Your task to perform on an android device: Go to settings Image 0: 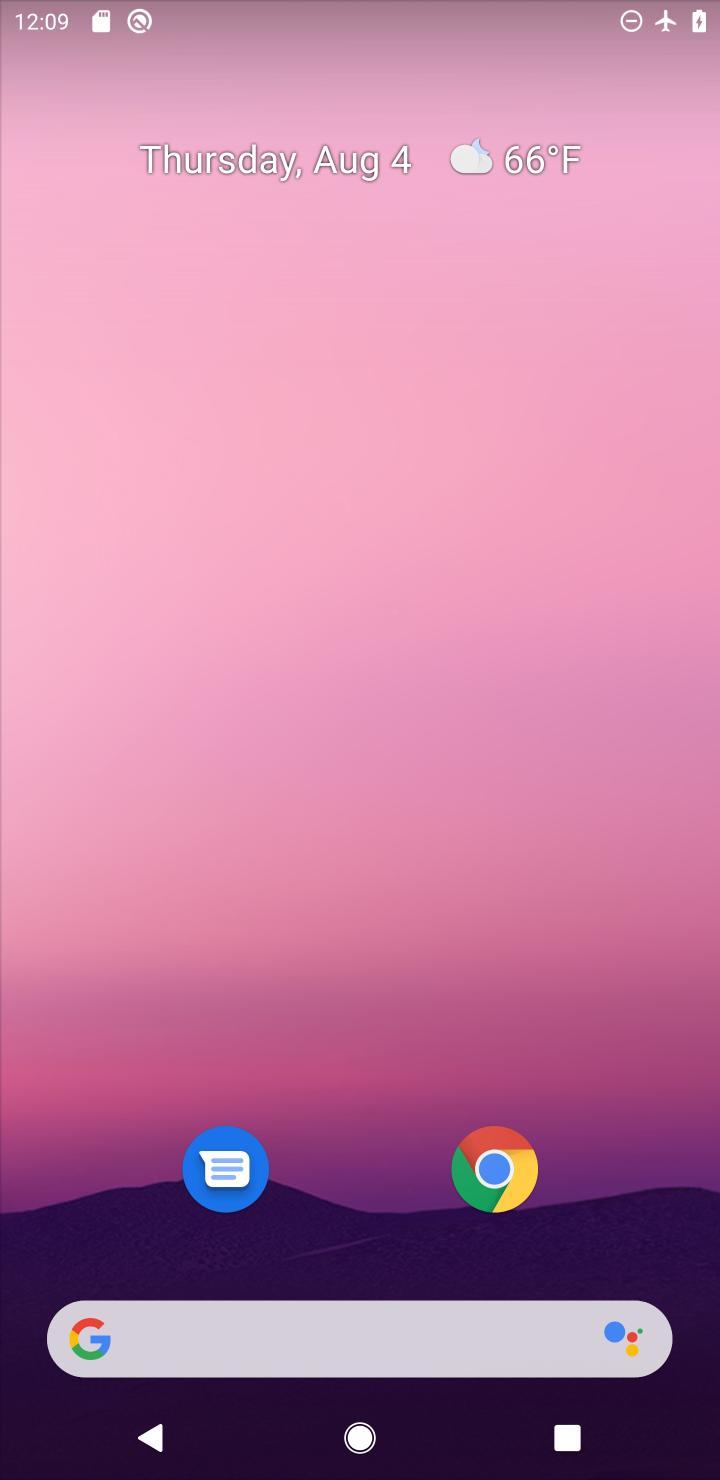
Step 0: drag from (372, 1193) to (430, 24)
Your task to perform on an android device: Go to settings Image 1: 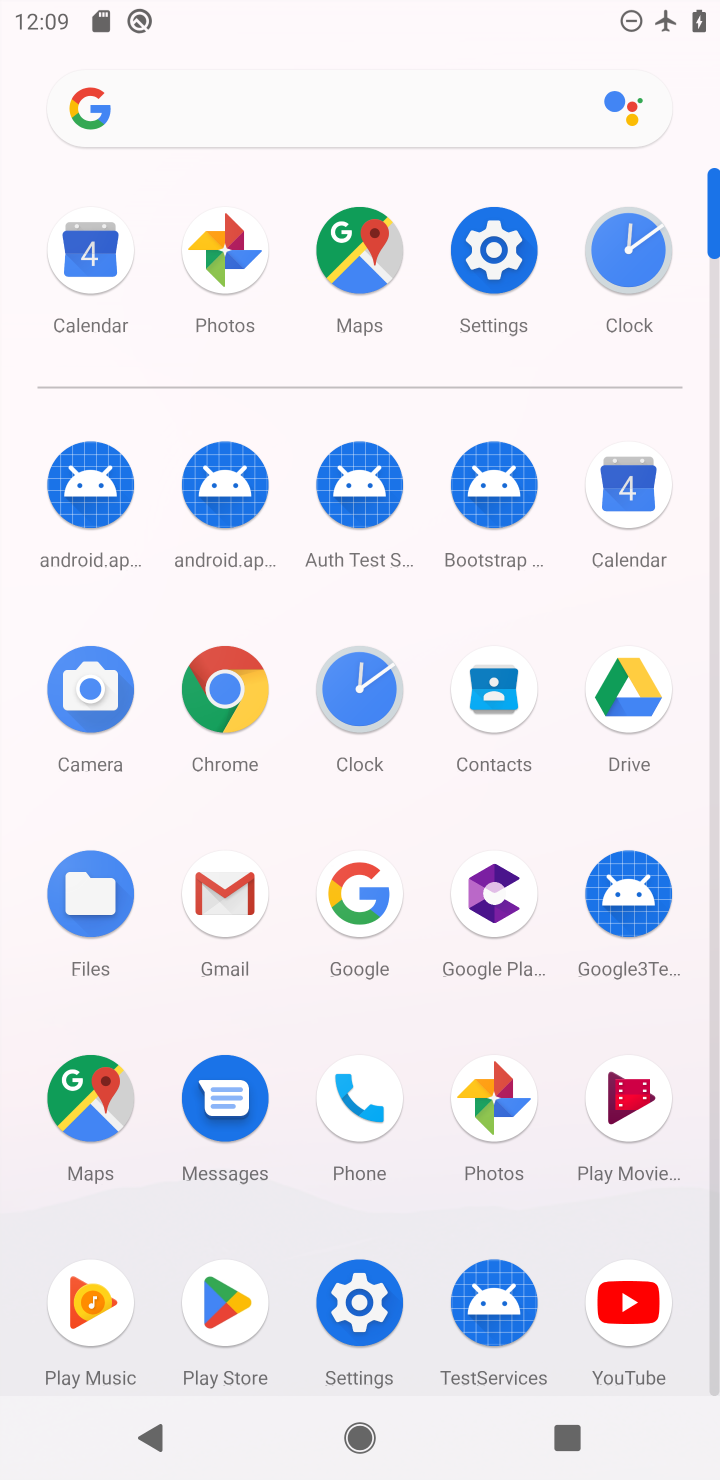
Step 1: click (496, 249)
Your task to perform on an android device: Go to settings Image 2: 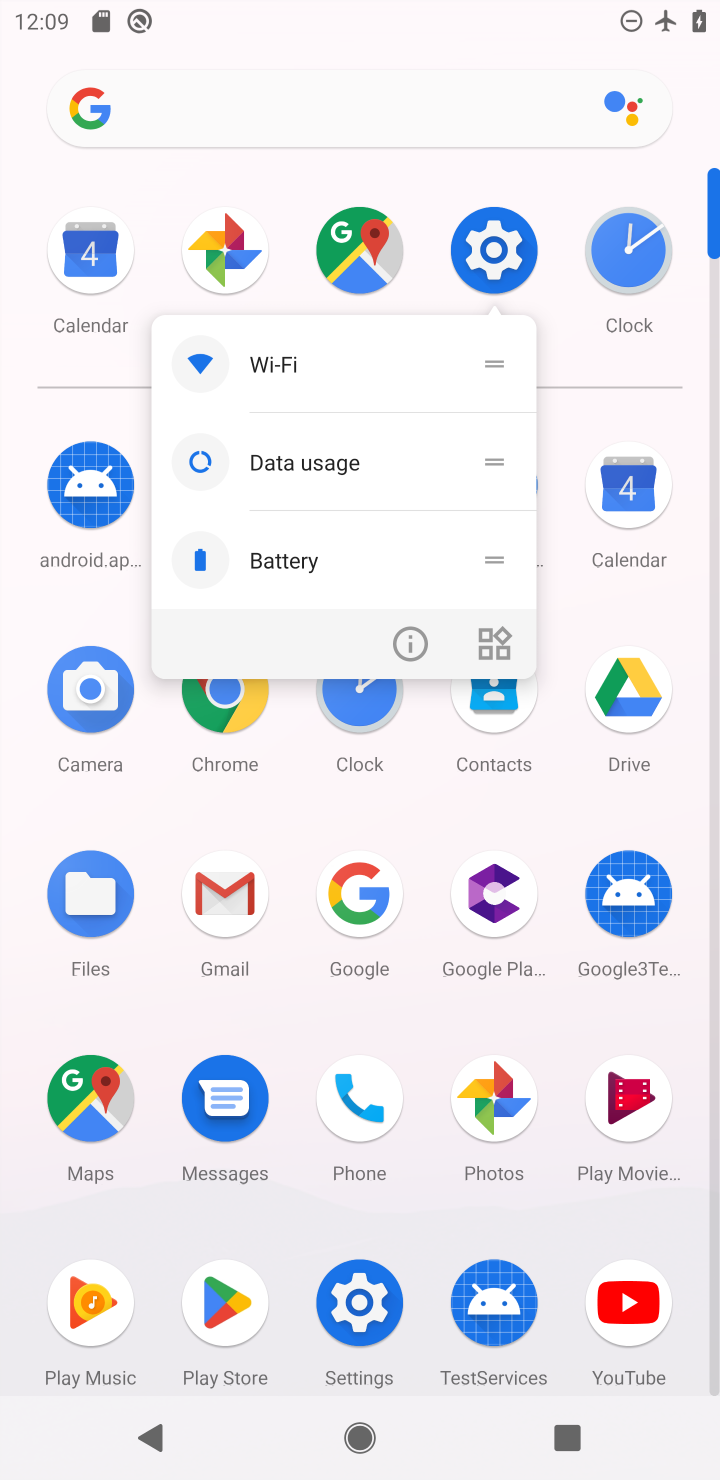
Step 2: click (496, 249)
Your task to perform on an android device: Go to settings Image 3: 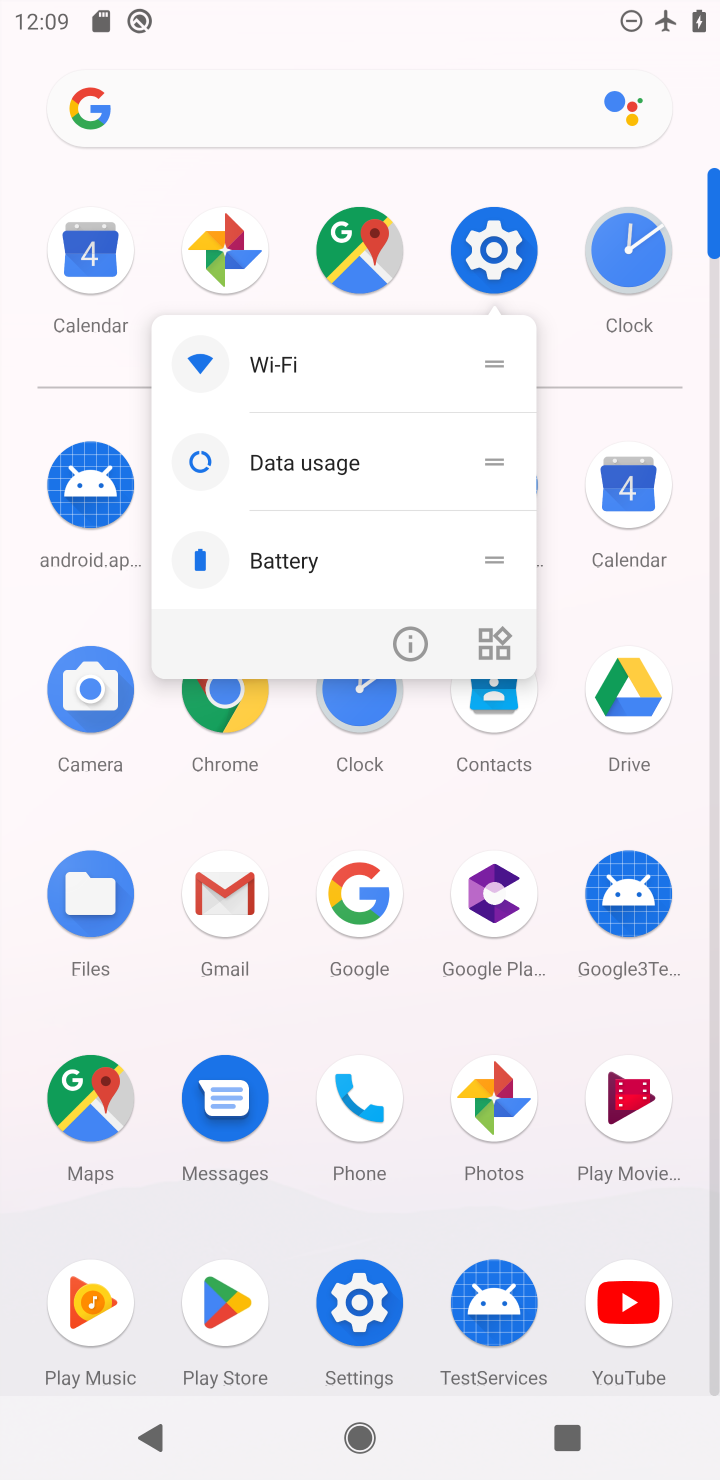
Step 3: click (496, 249)
Your task to perform on an android device: Go to settings Image 4: 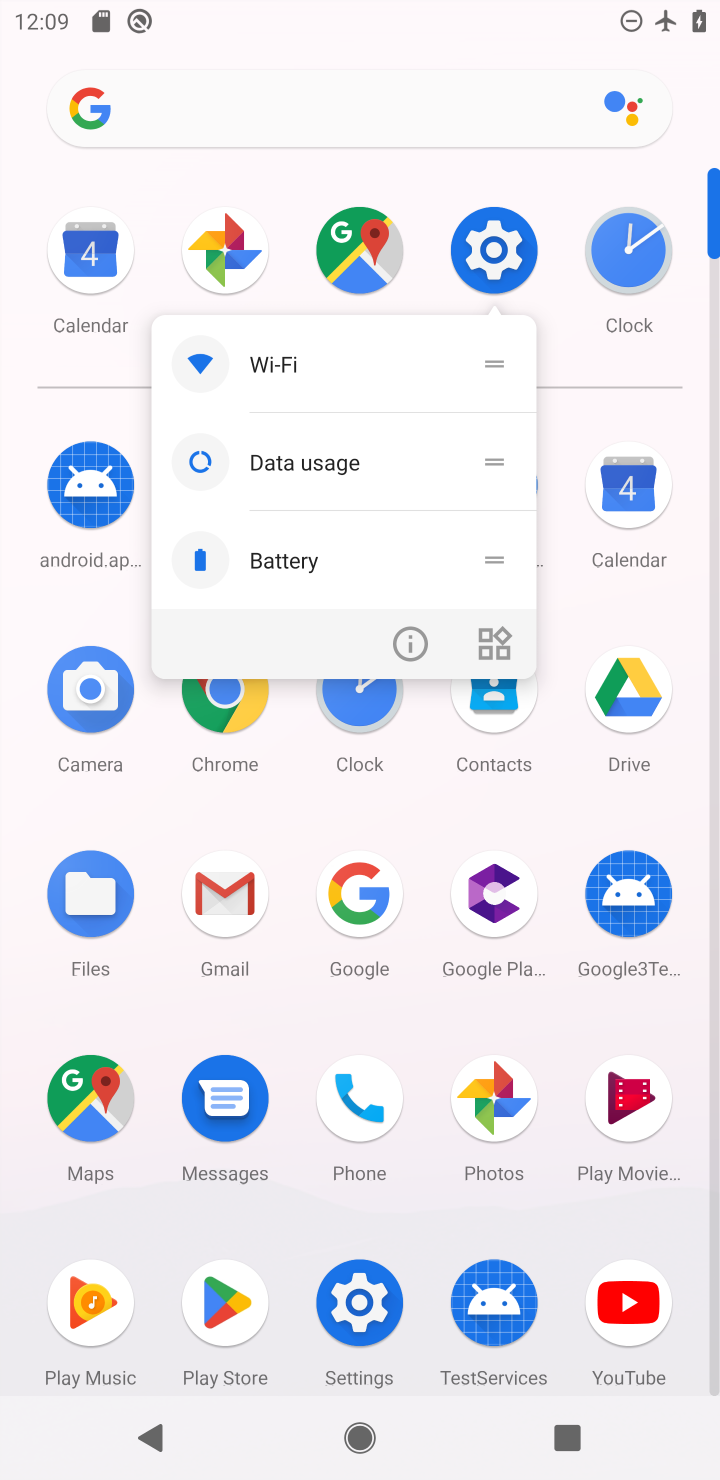
Step 4: click (496, 249)
Your task to perform on an android device: Go to settings Image 5: 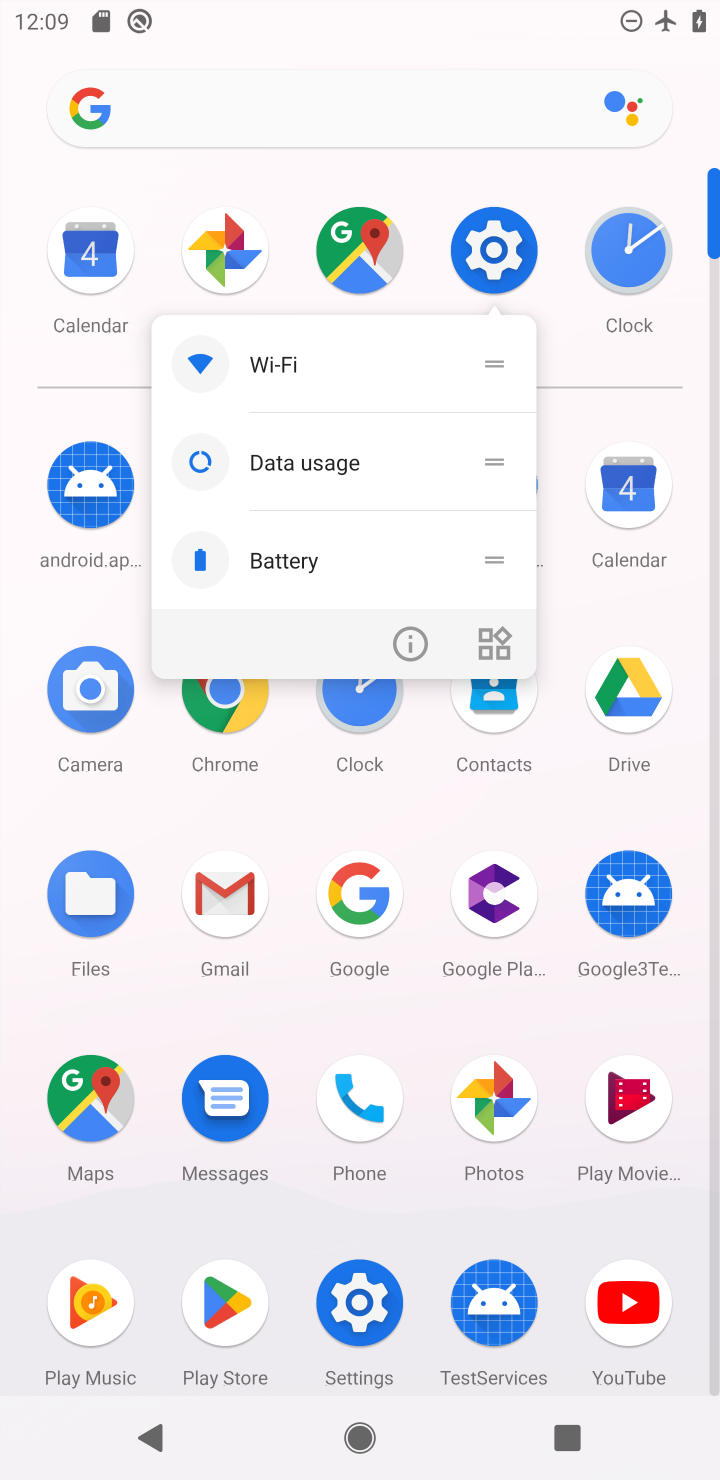
Step 5: click (510, 250)
Your task to perform on an android device: Go to settings Image 6: 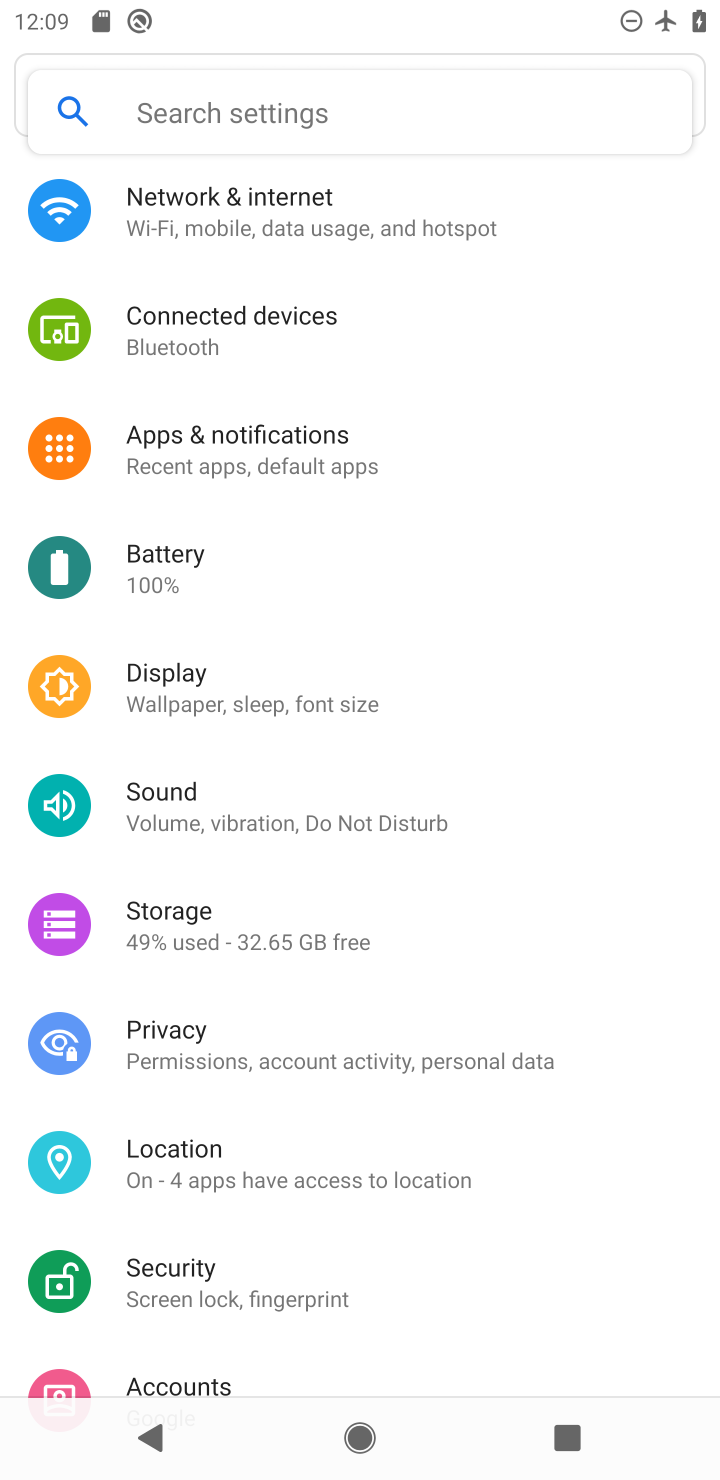
Step 6: task complete